Your task to perform on an android device: Go to Google maps Image 0: 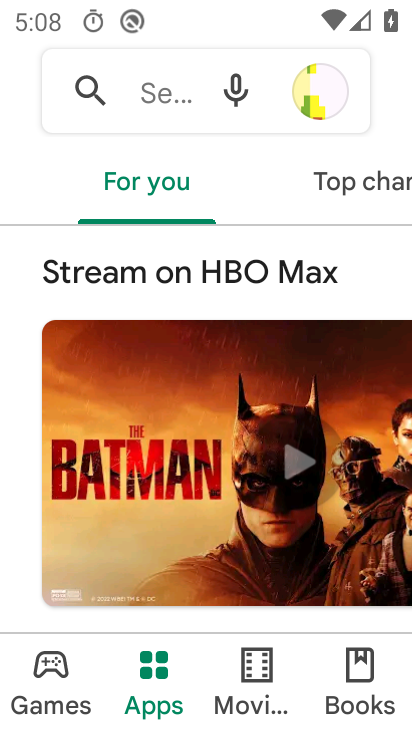
Step 0: press home button
Your task to perform on an android device: Go to Google maps Image 1: 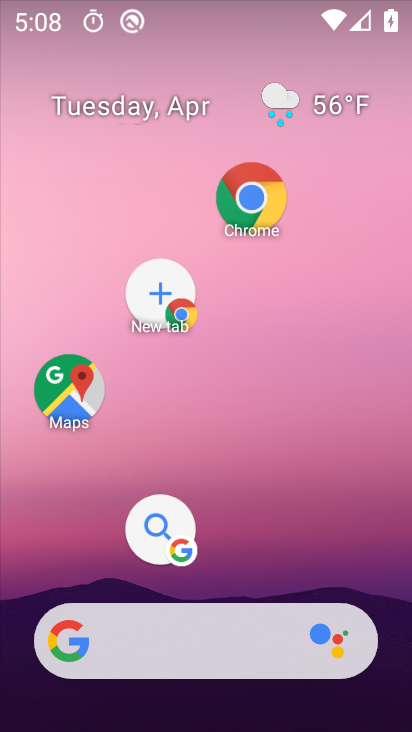
Step 1: click (67, 384)
Your task to perform on an android device: Go to Google maps Image 2: 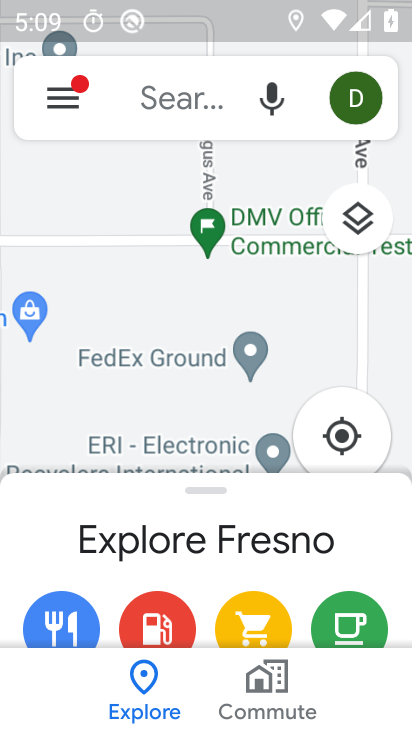
Step 2: task complete